Your task to perform on an android device: turn off airplane mode Image 0: 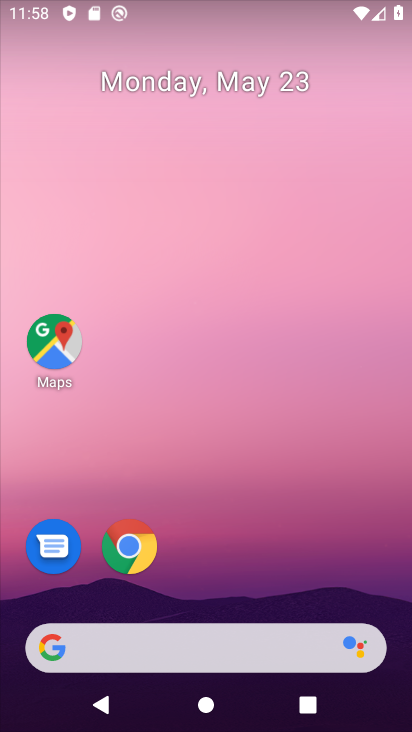
Step 0: drag from (340, 620) to (326, 45)
Your task to perform on an android device: turn off airplane mode Image 1: 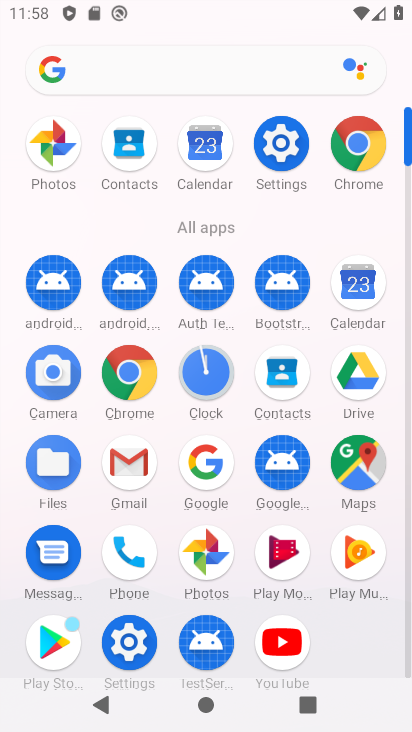
Step 1: click (269, 132)
Your task to perform on an android device: turn off airplane mode Image 2: 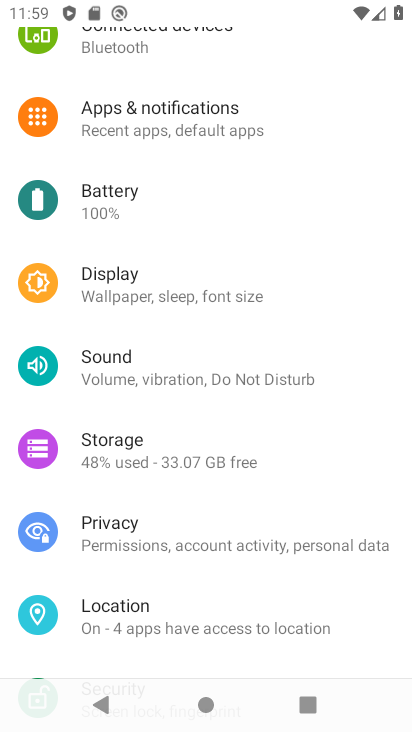
Step 2: drag from (246, 209) to (302, 686)
Your task to perform on an android device: turn off airplane mode Image 3: 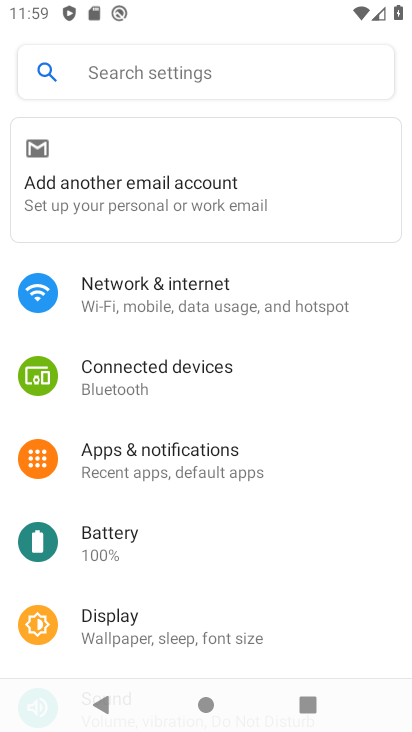
Step 3: click (274, 318)
Your task to perform on an android device: turn off airplane mode Image 4: 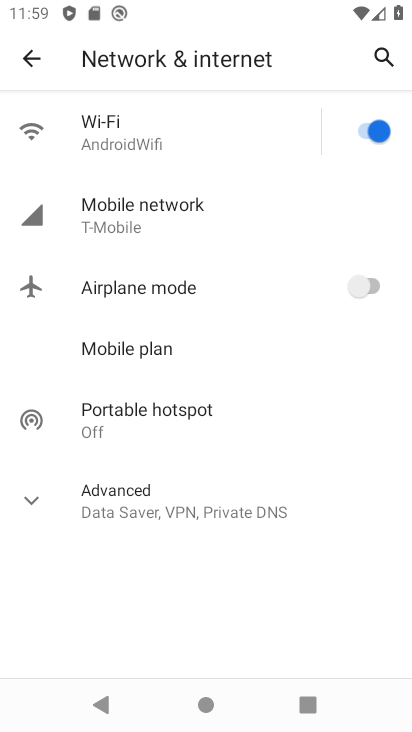
Step 4: task complete